Your task to perform on an android device: Open the calendar and show me this week's events? Image 0: 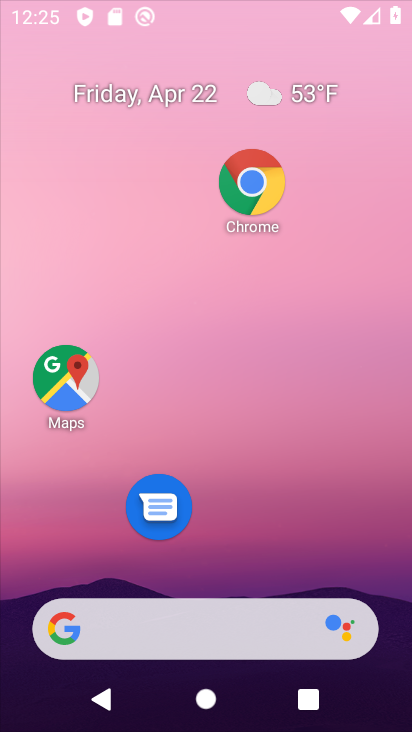
Step 0: drag from (214, 513) to (202, 15)
Your task to perform on an android device: Open the calendar and show me this week's events? Image 1: 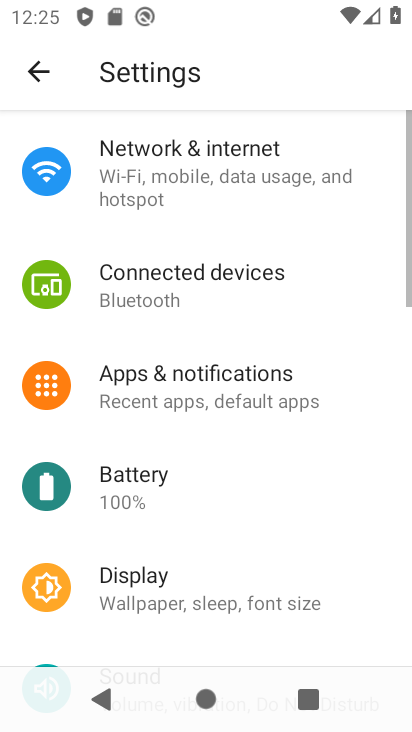
Step 1: press home button
Your task to perform on an android device: Open the calendar and show me this week's events? Image 2: 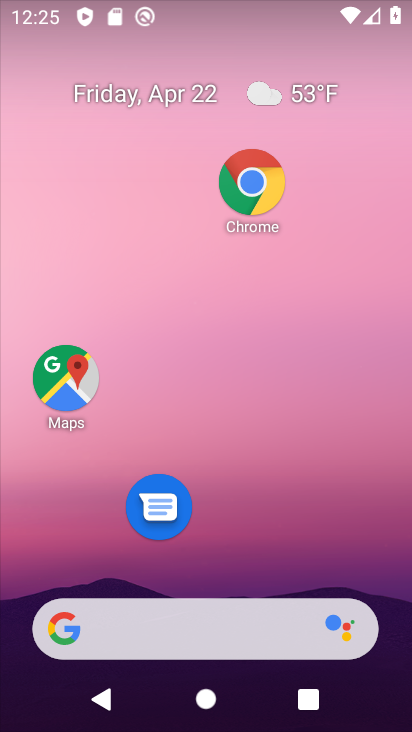
Step 2: drag from (166, 608) to (203, 23)
Your task to perform on an android device: Open the calendar and show me this week's events? Image 3: 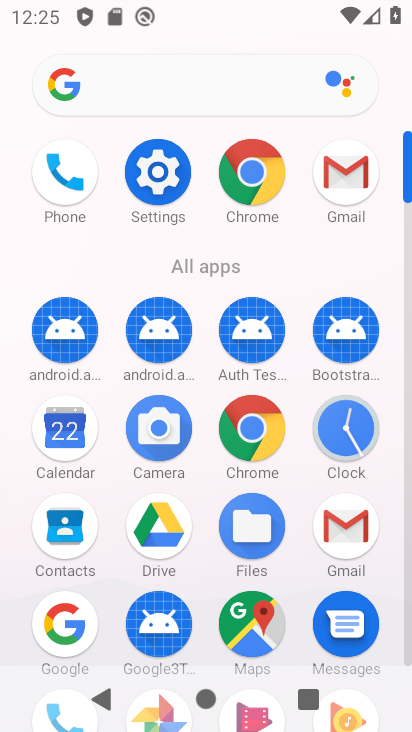
Step 3: click (69, 437)
Your task to perform on an android device: Open the calendar and show me this week's events? Image 4: 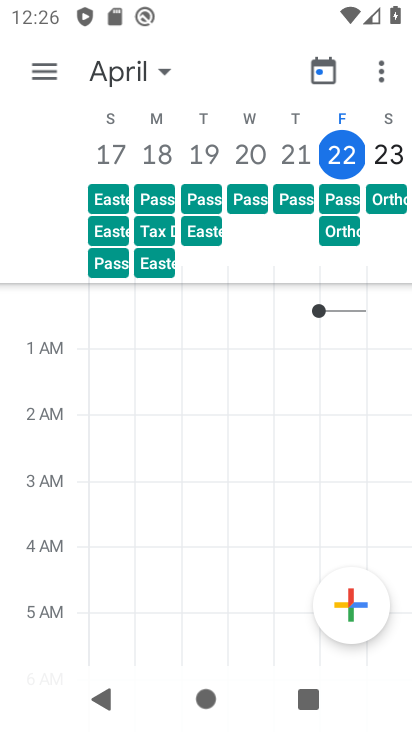
Step 4: task complete